Your task to perform on an android device: Open Yahoo.com Image 0: 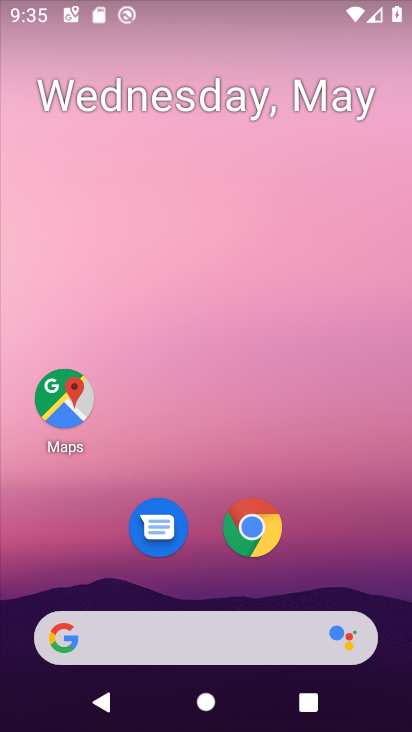
Step 0: drag from (209, 563) to (224, 109)
Your task to perform on an android device: Open Yahoo.com Image 1: 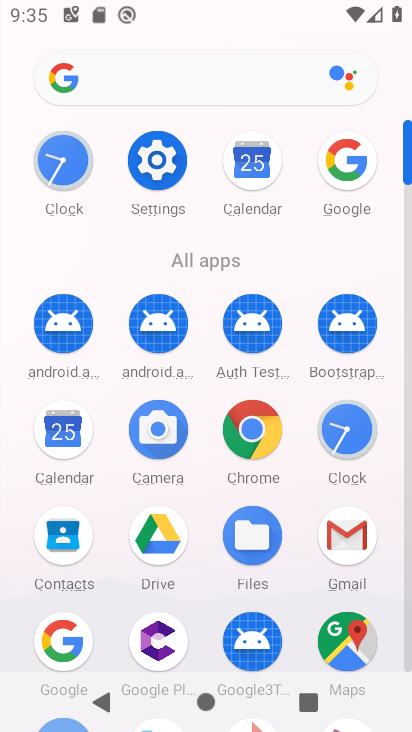
Step 1: click (258, 429)
Your task to perform on an android device: Open Yahoo.com Image 2: 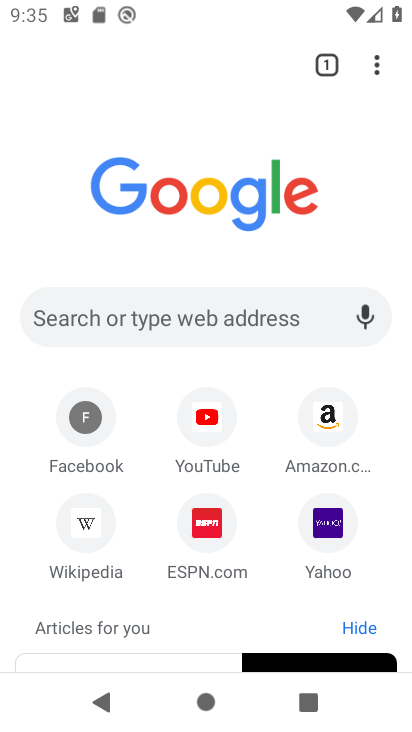
Step 2: click (313, 520)
Your task to perform on an android device: Open Yahoo.com Image 3: 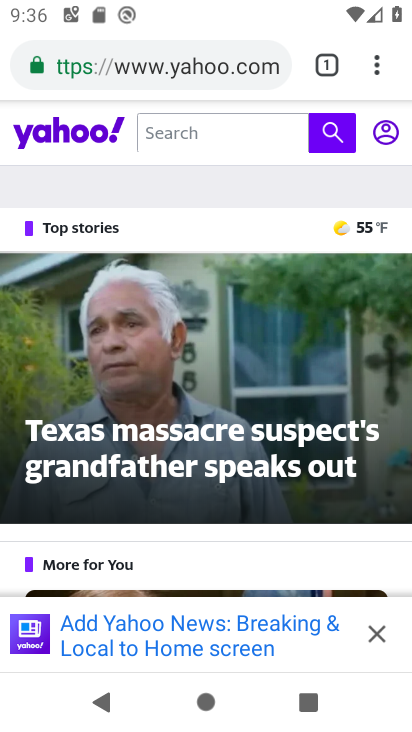
Step 3: task complete